Your task to perform on an android device: Search for the new Nintendo switch on Best Buy Image 0: 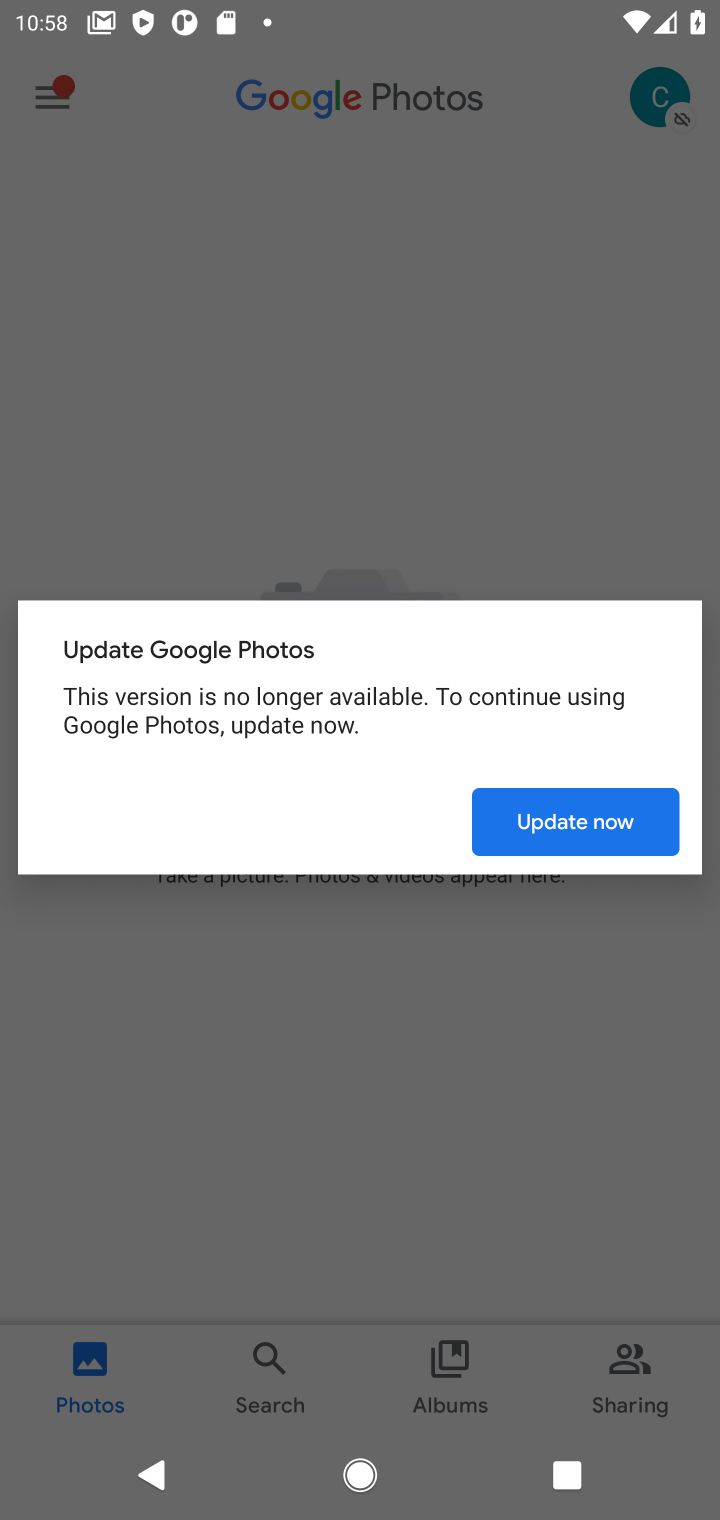
Step 0: press home button
Your task to perform on an android device: Search for the new Nintendo switch on Best Buy Image 1: 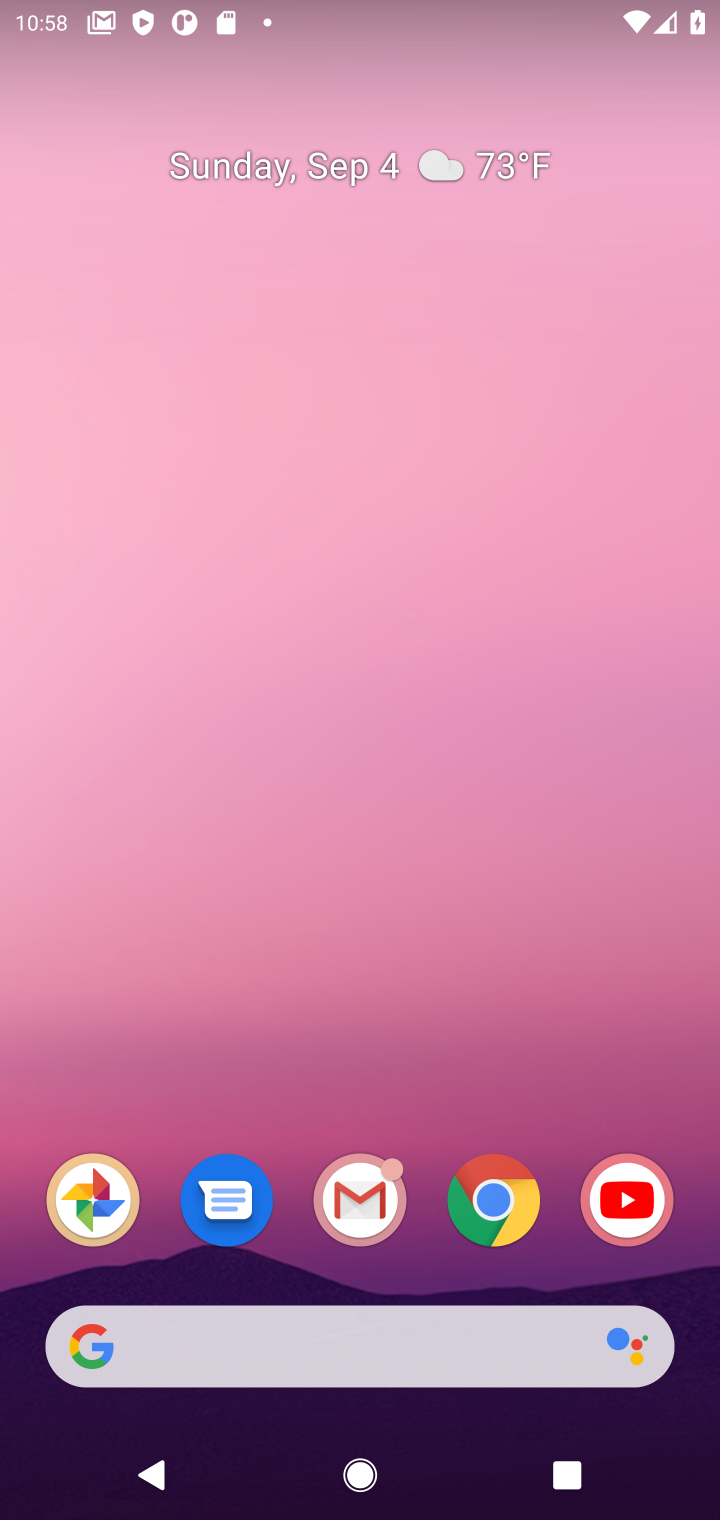
Step 1: click (497, 1201)
Your task to perform on an android device: Search for the new Nintendo switch on Best Buy Image 2: 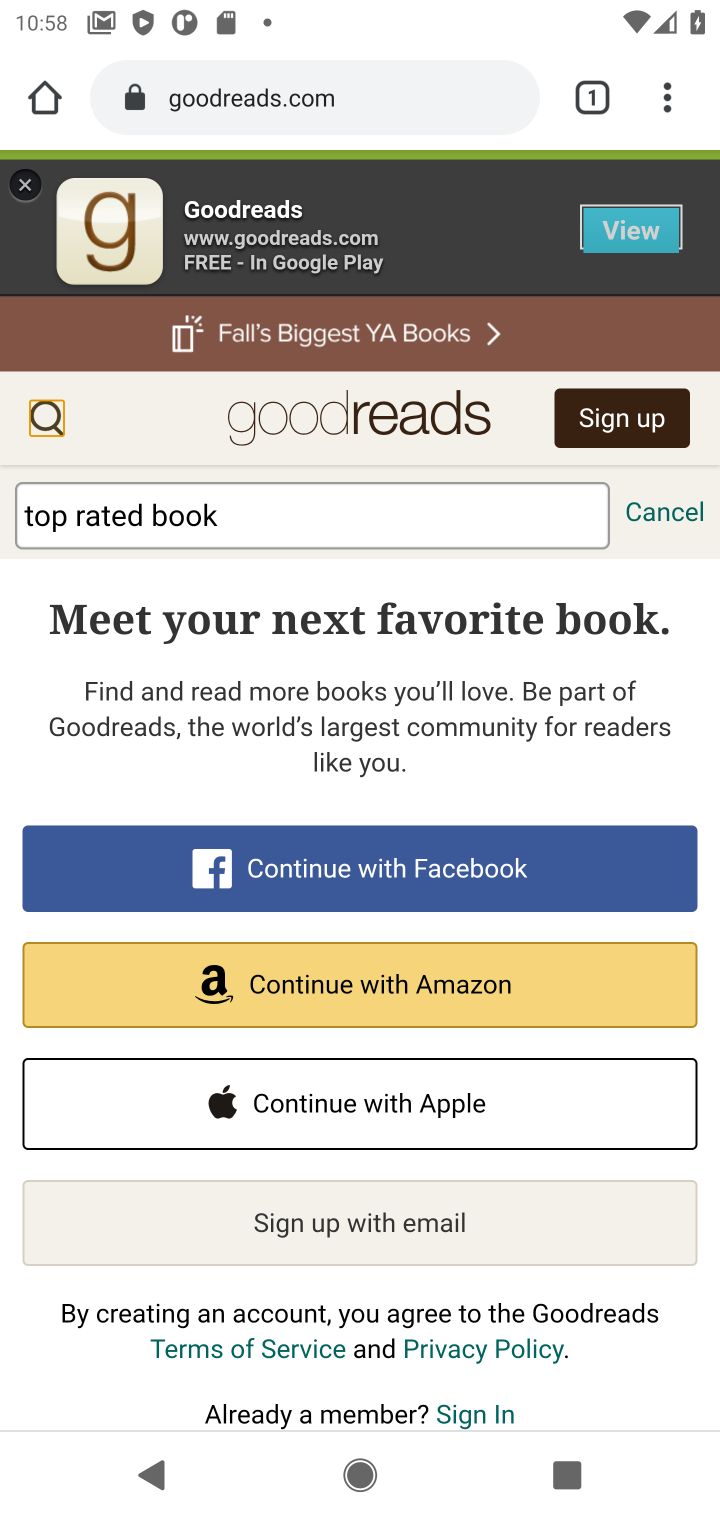
Step 2: click (335, 110)
Your task to perform on an android device: Search for the new Nintendo switch on Best Buy Image 3: 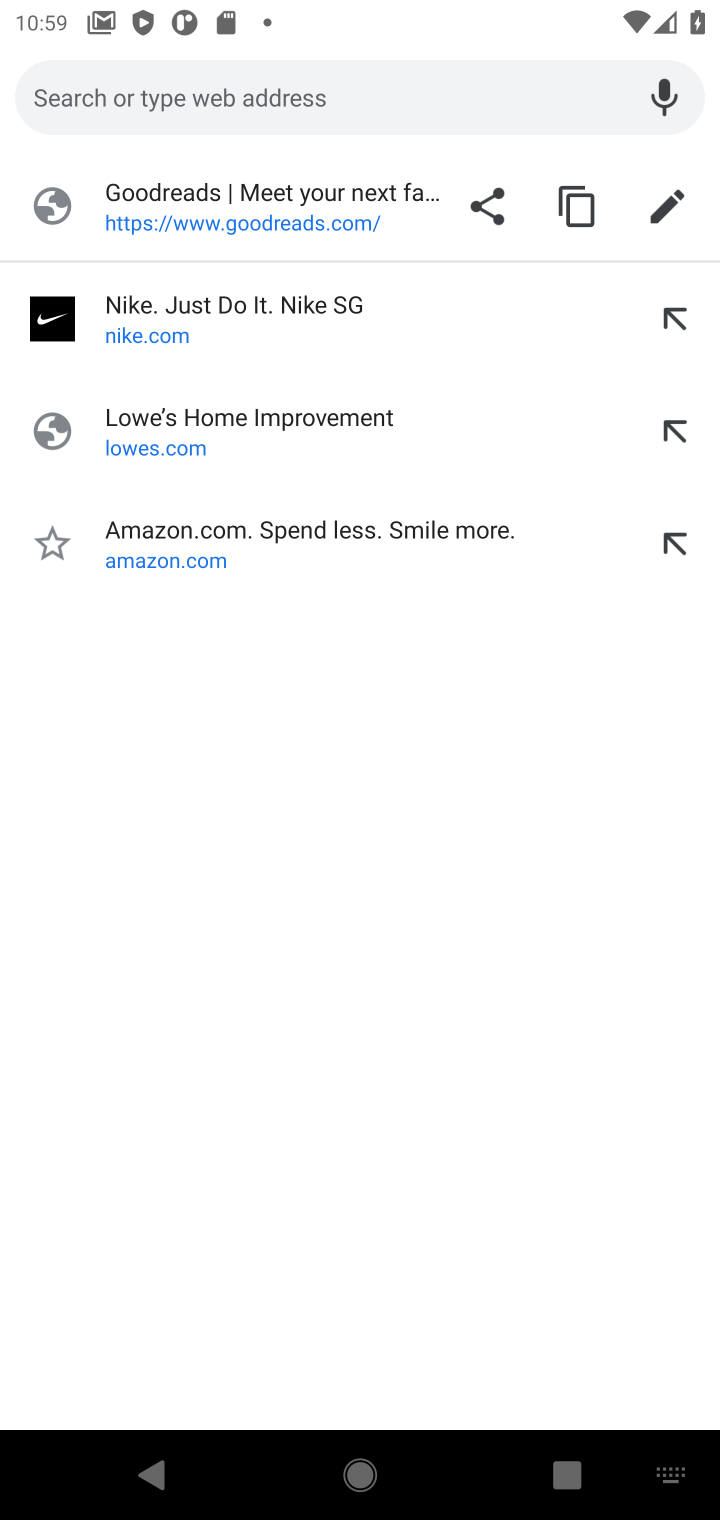
Step 3: type "best buy"
Your task to perform on an android device: Search for the new Nintendo switch on Best Buy Image 4: 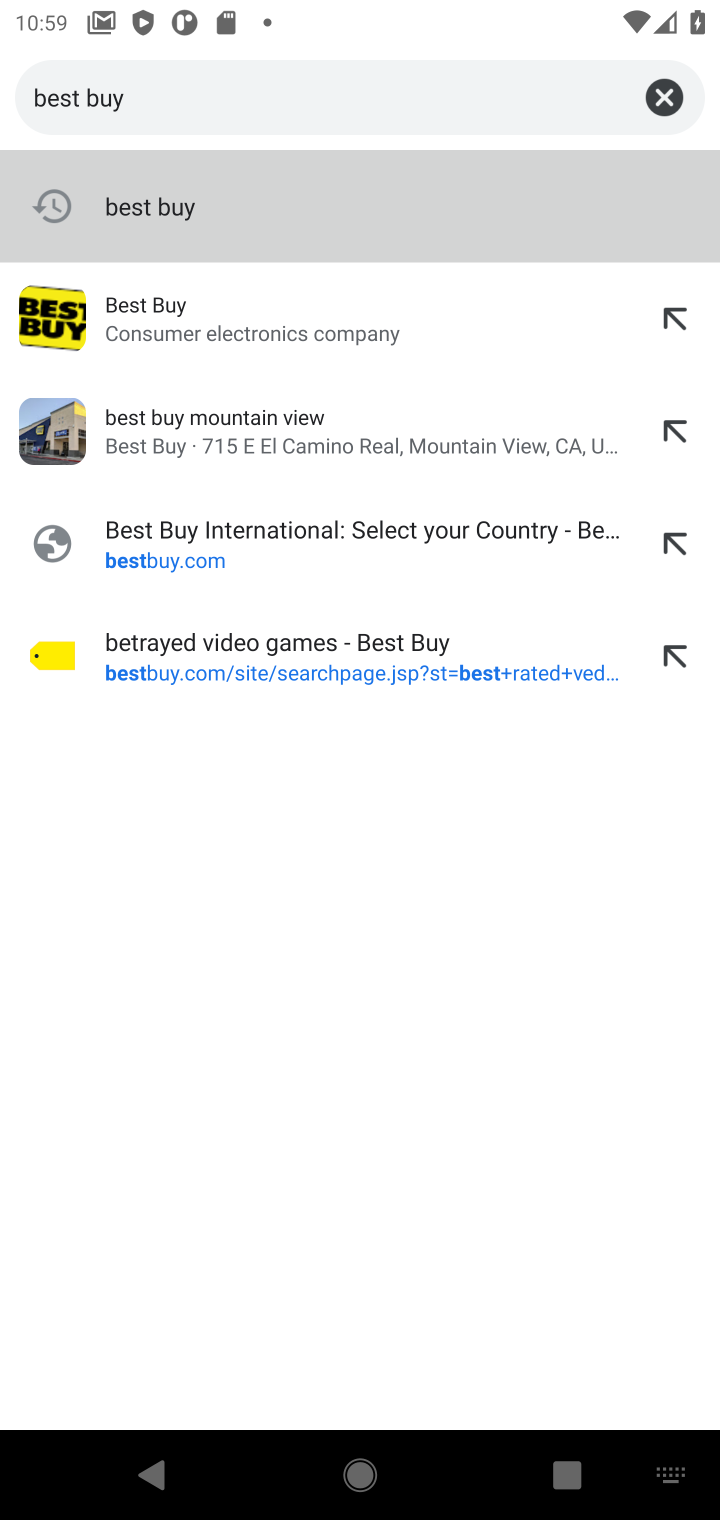
Step 4: click (407, 308)
Your task to perform on an android device: Search for the new Nintendo switch on Best Buy Image 5: 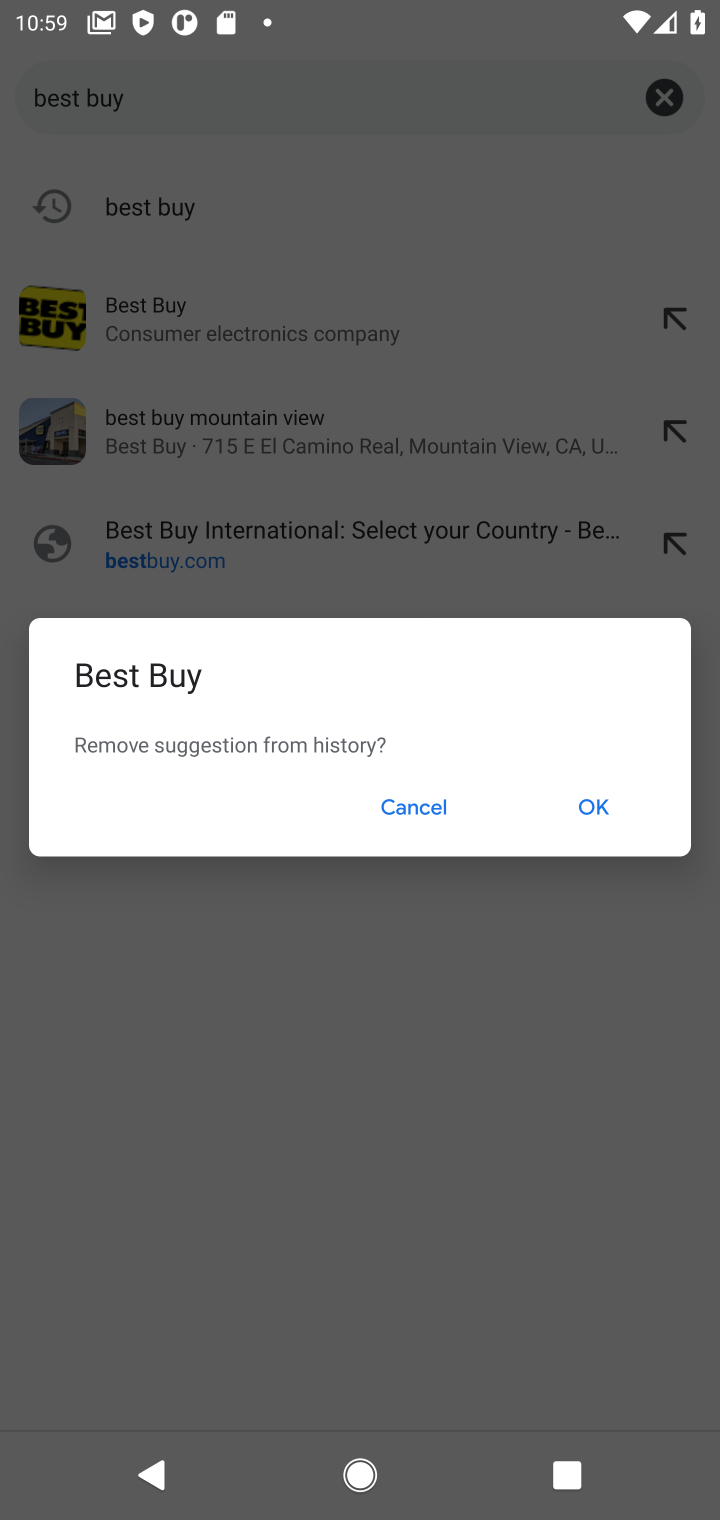
Step 5: click (416, 814)
Your task to perform on an android device: Search for the new Nintendo switch on Best Buy Image 6: 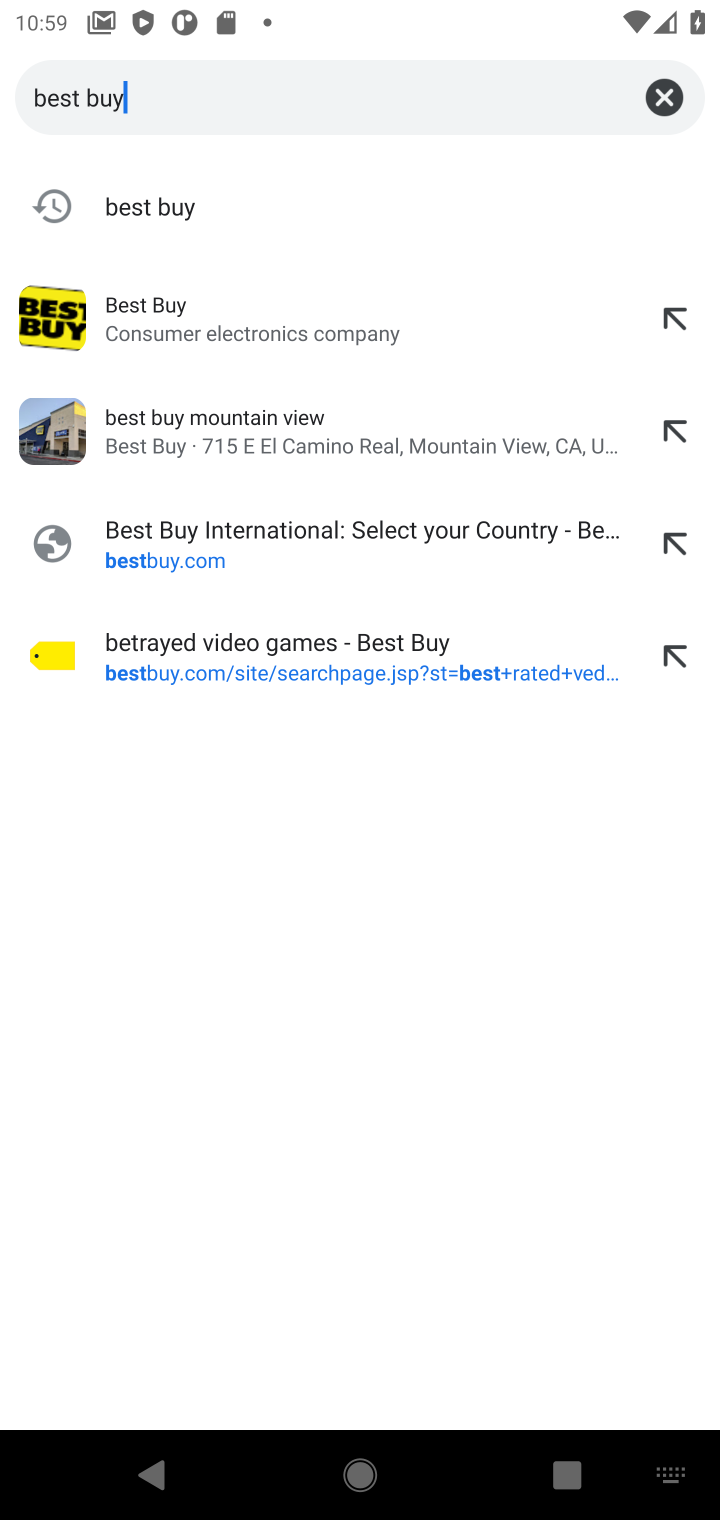
Step 6: click (677, 318)
Your task to perform on an android device: Search for the new Nintendo switch on Best Buy Image 7: 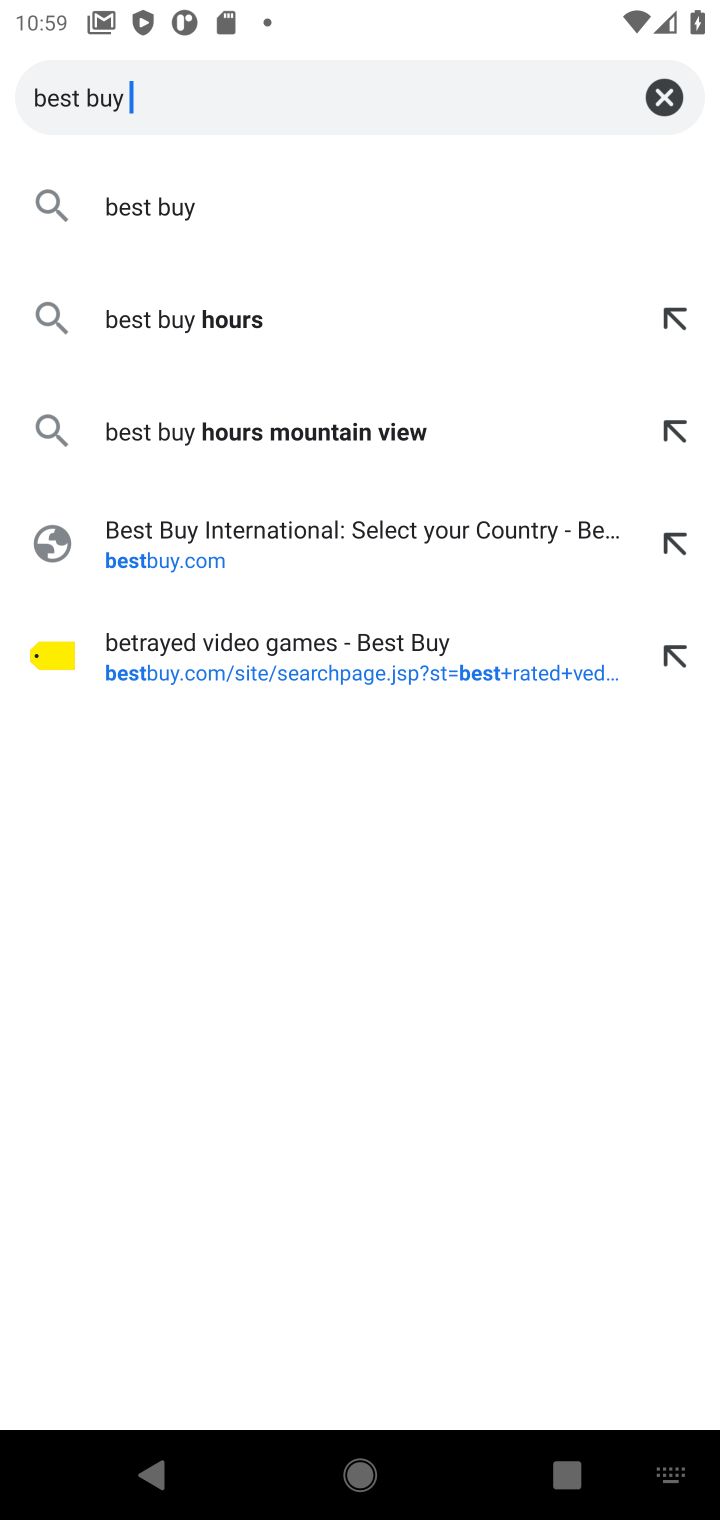
Step 7: click (675, 322)
Your task to perform on an android device: Search for the new Nintendo switch on Best Buy Image 8: 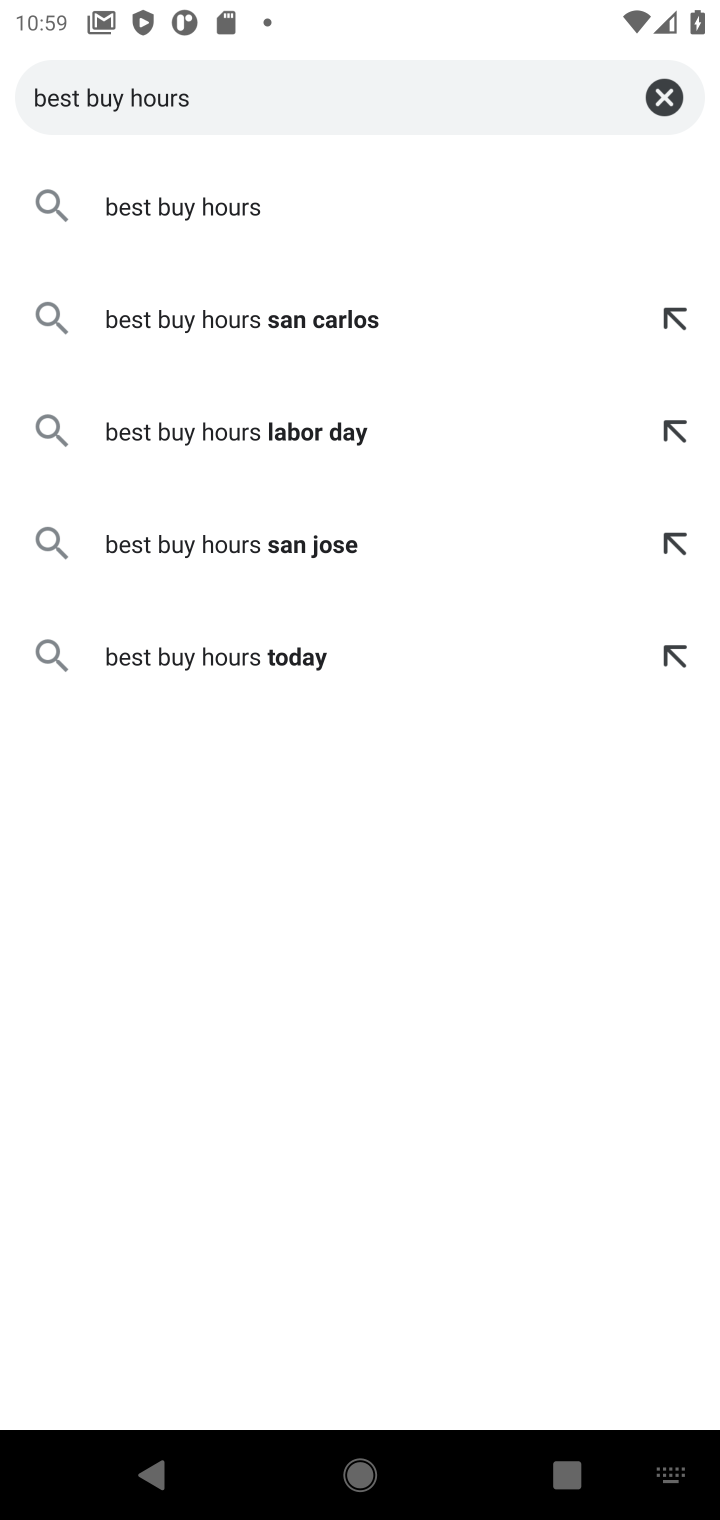
Step 8: click (667, 101)
Your task to perform on an android device: Search for the new Nintendo switch on Best Buy Image 9: 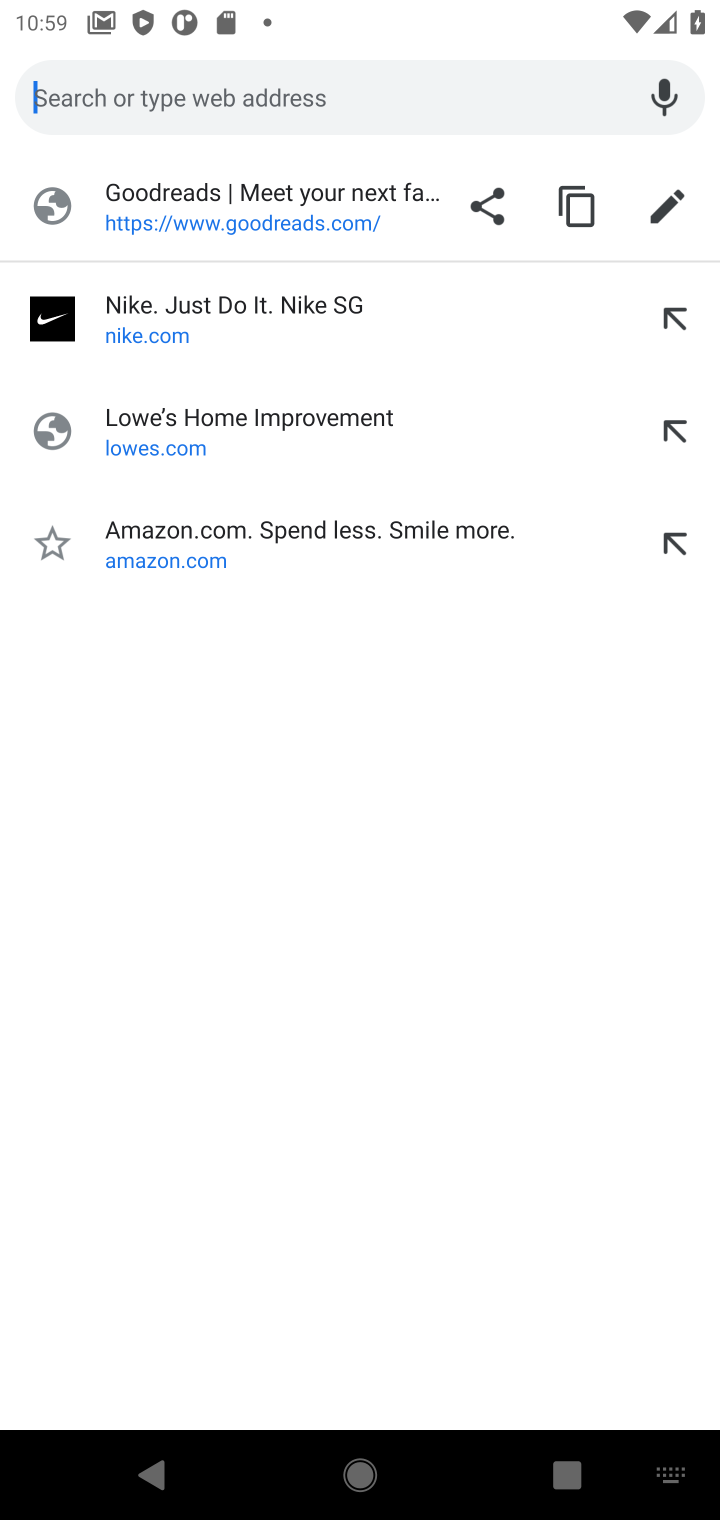
Step 9: type "best buy"
Your task to perform on an android device: Search for the new Nintendo switch on Best Buy Image 10: 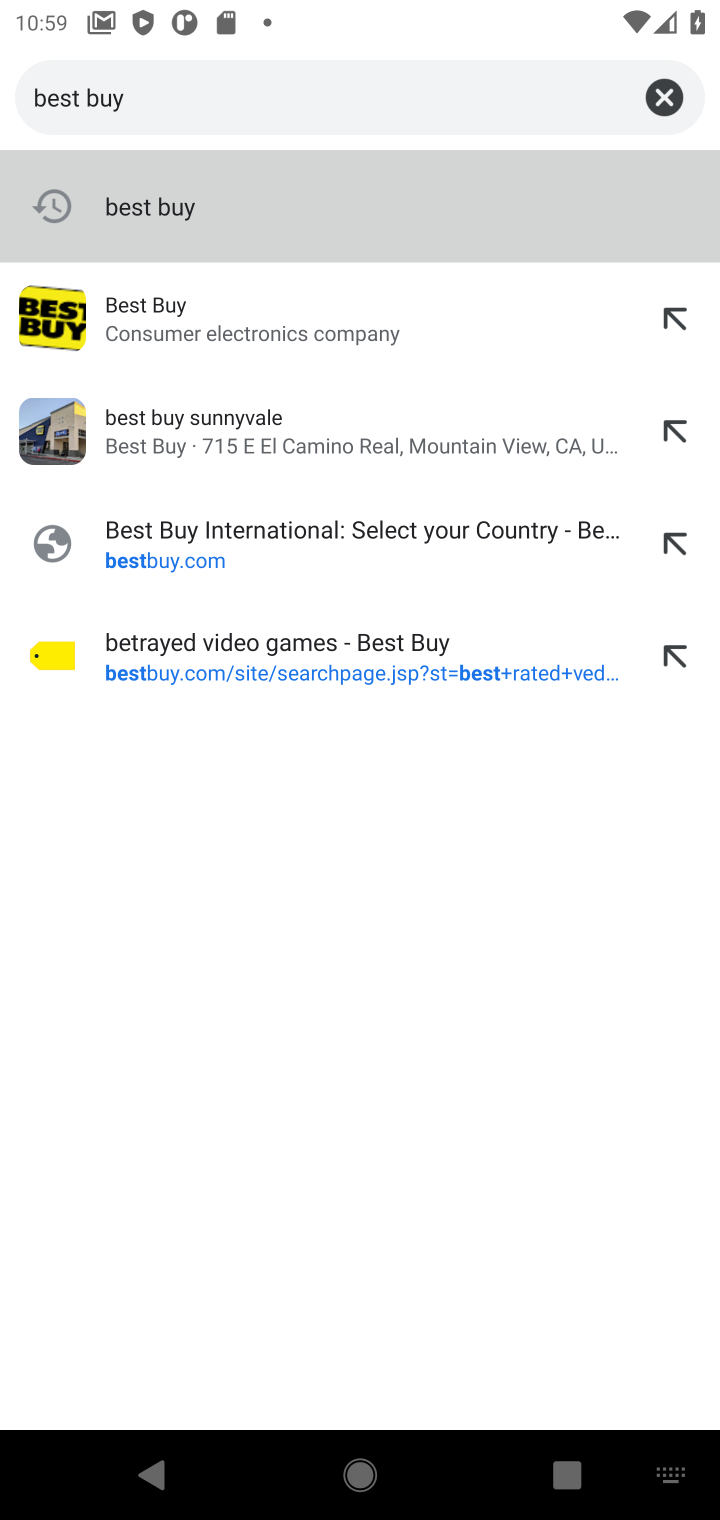
Step 10: click (390, 350)
Your task to perform on an android device: Search for the new Nintendo switch on Best Buy Image 11: 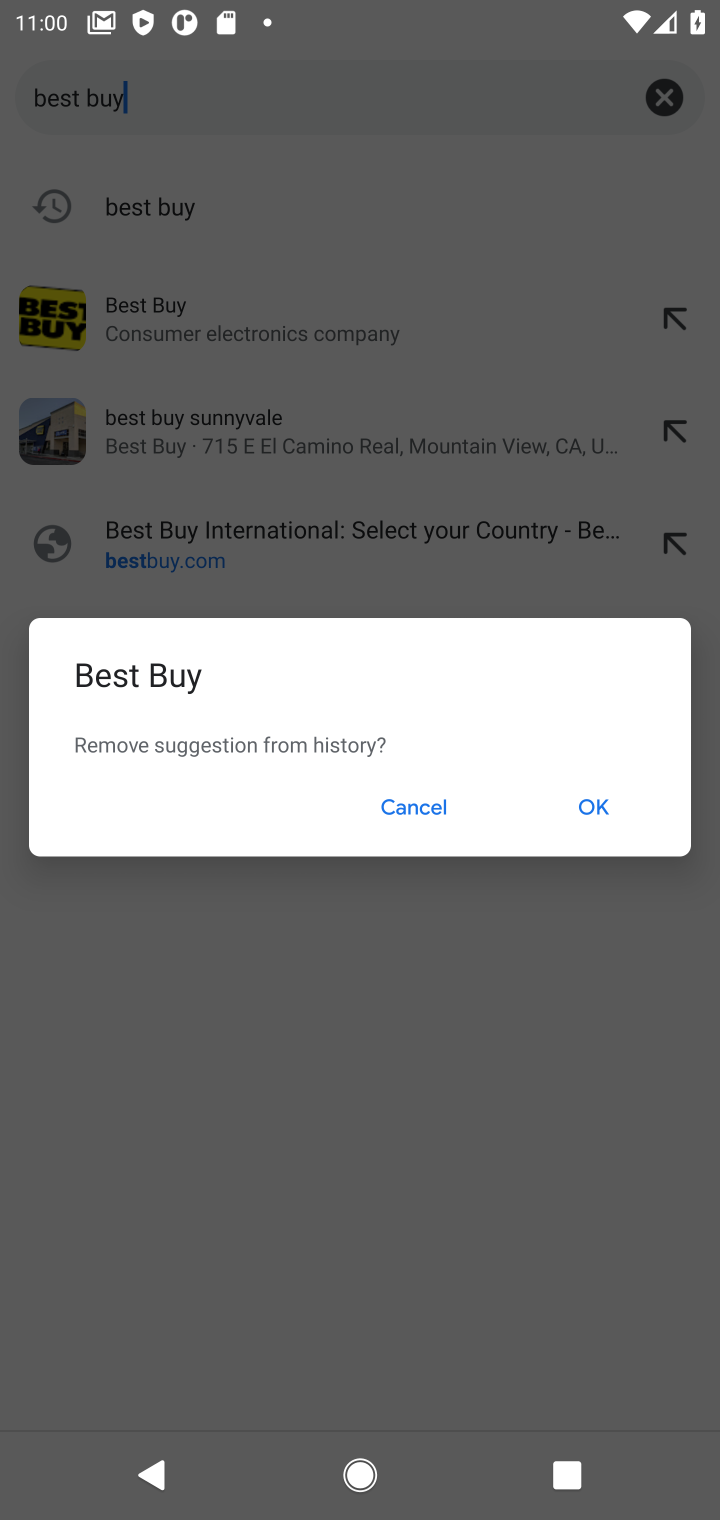
Step 11: click (436, 802)
Your task to perform on an android device: Search for the new Nintendo switch on Best Buy Image 12: 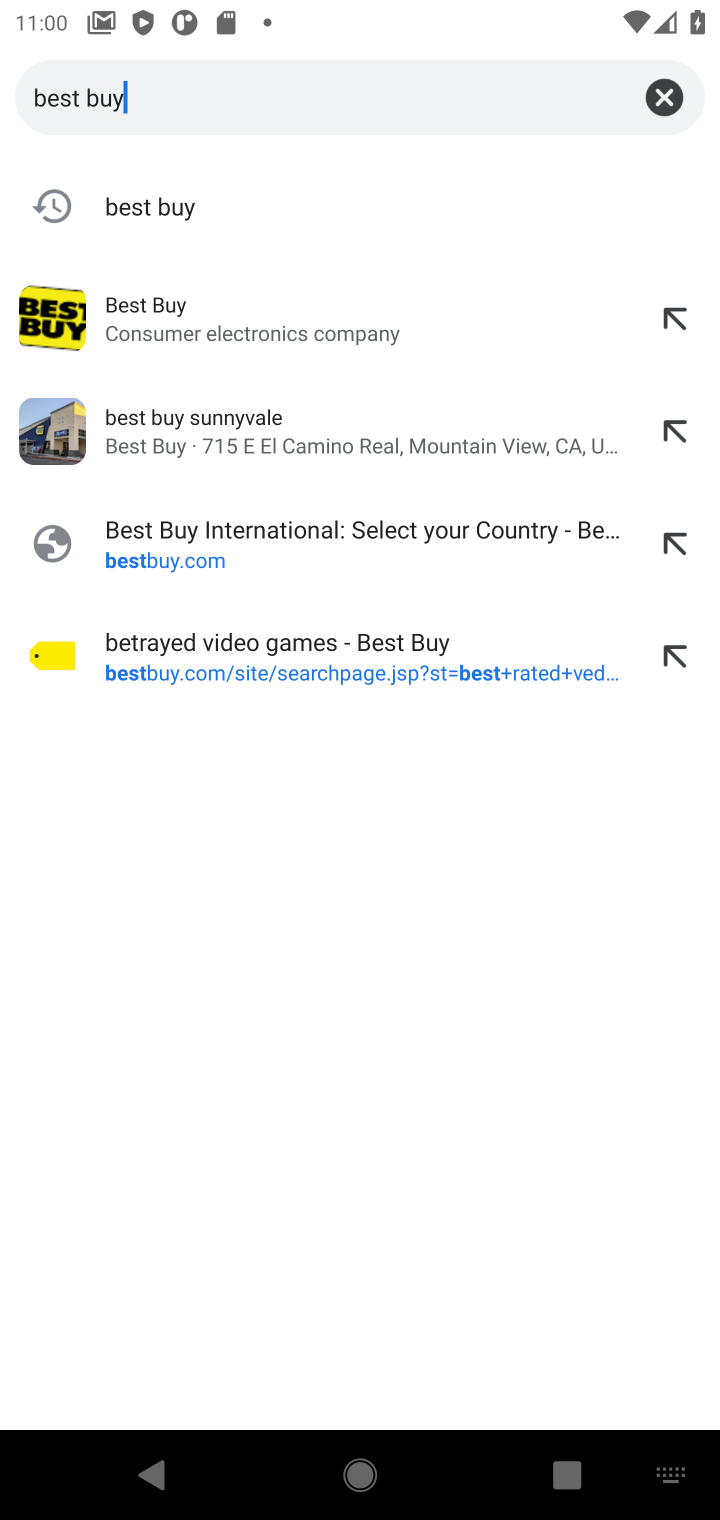
Step 12: click (57, 325)
Your task to perform on an android device: Search for the new Nintendo switch on Best Buy Image 13: 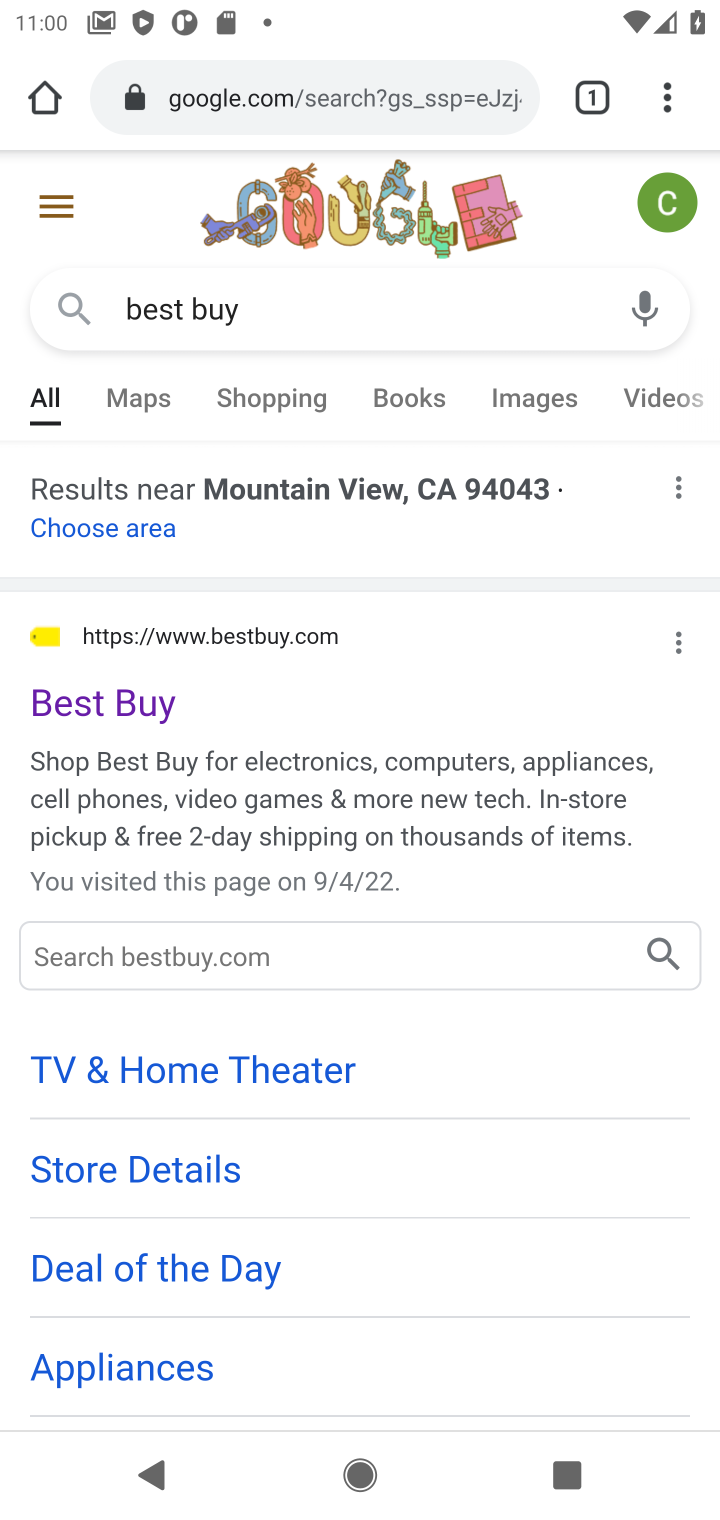
Step 13: click (130, 702)
Your task to perform on an android device: Search for the new Nintendo switch on Best Buy Image 14: 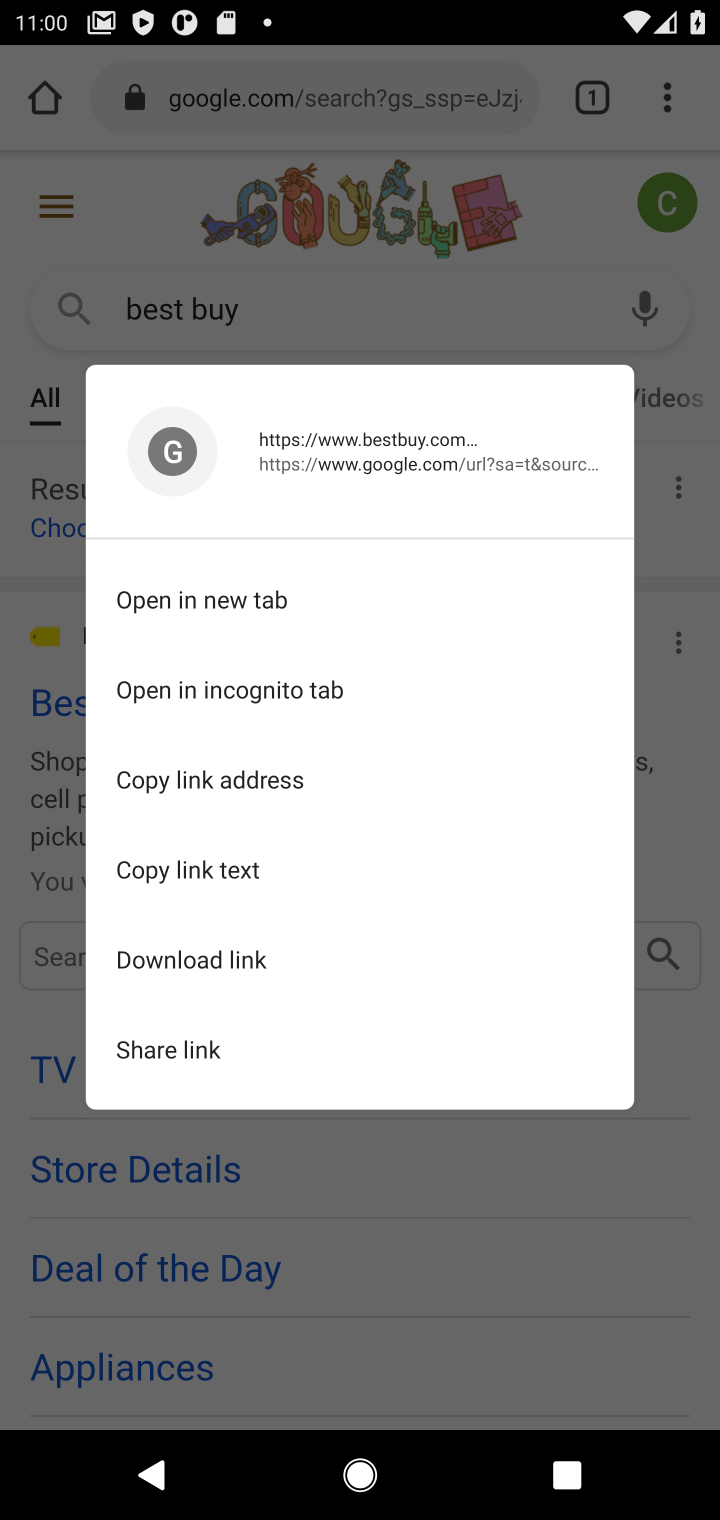
Step 14: click (21, 770)
Your task to perform on an android device: Search for the new Nintendo switch on Best Buy Image 15: 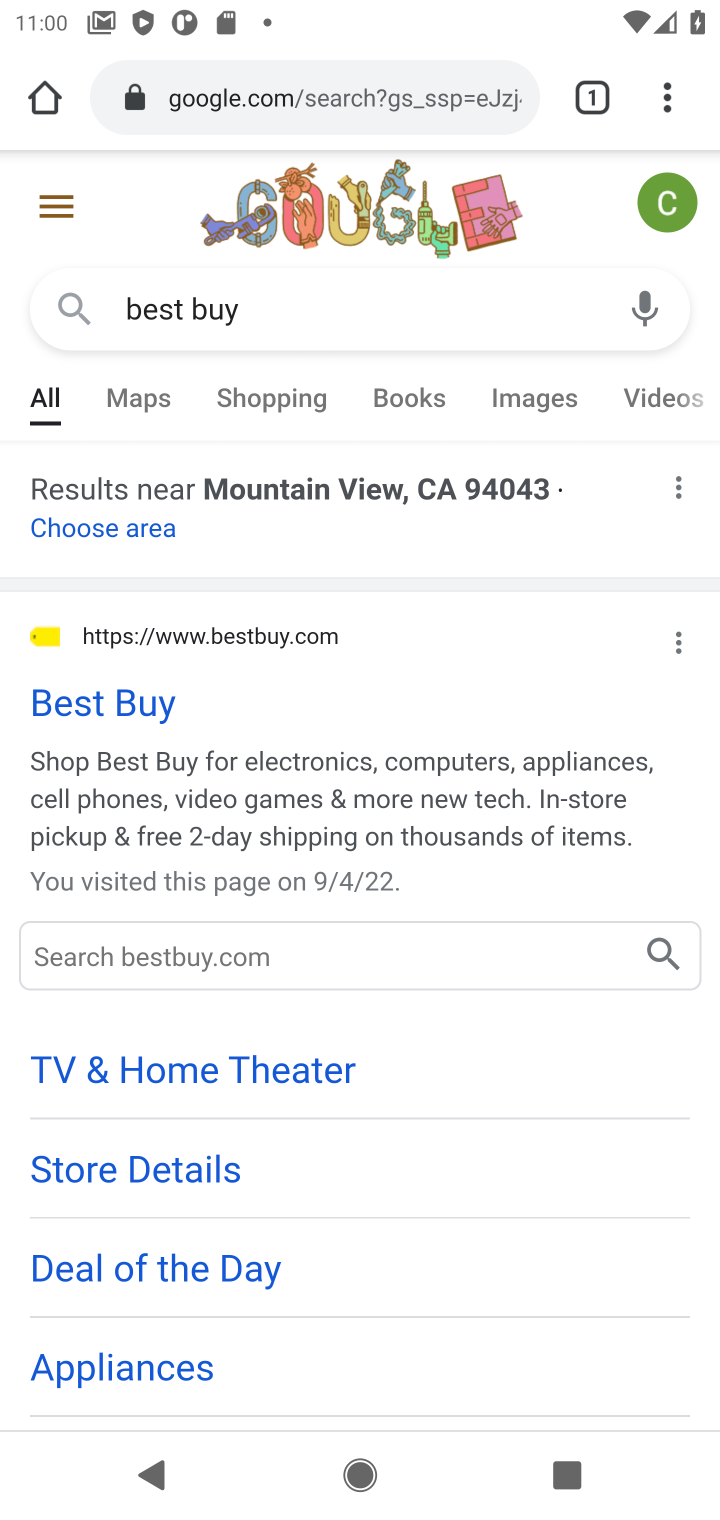
Step 15: click (83, 696)
Your task to perform on an android device: Search for the new Nintendo switch on Best Buy Image 16: 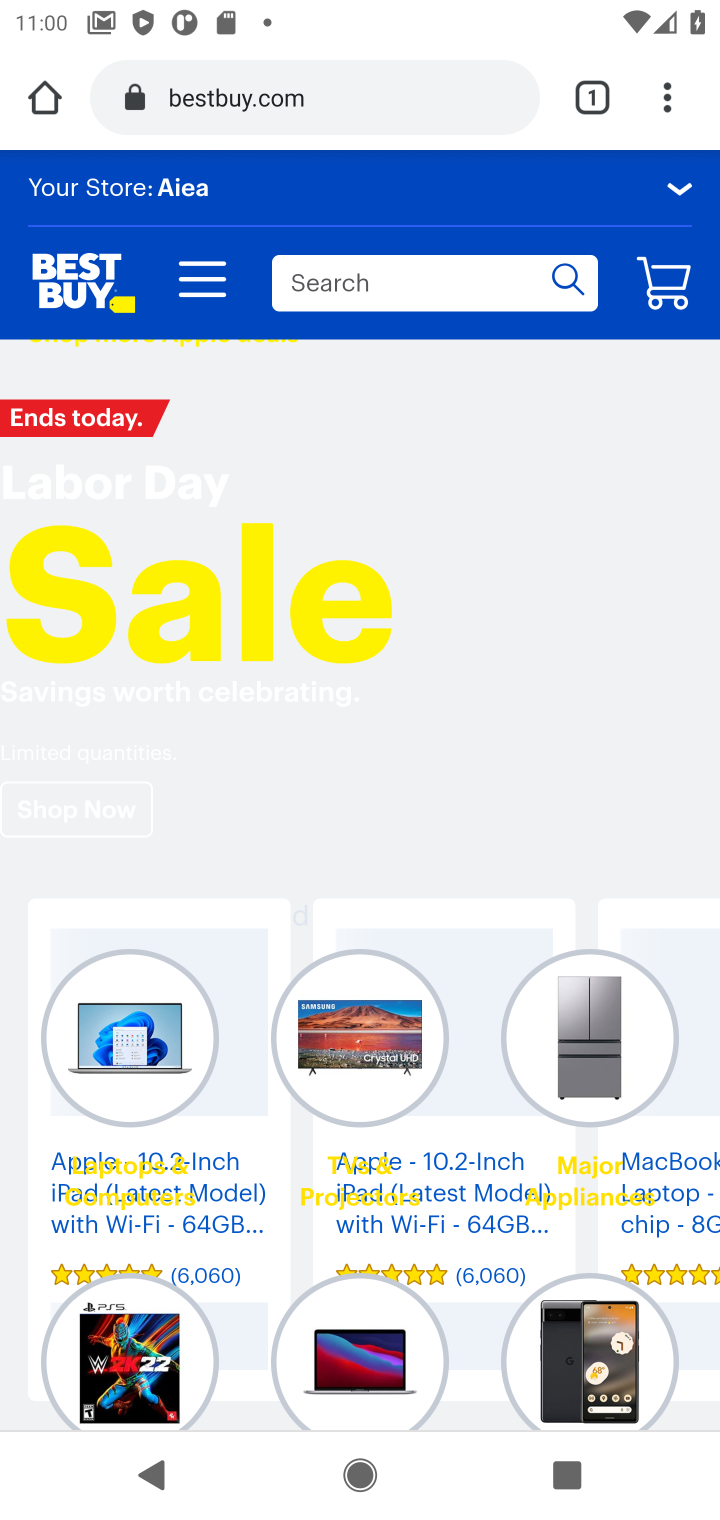
Step 16: click (568, 275)
Your task to perform on an android device: Search for the new Nintendo switch on Best Buy Image 17: 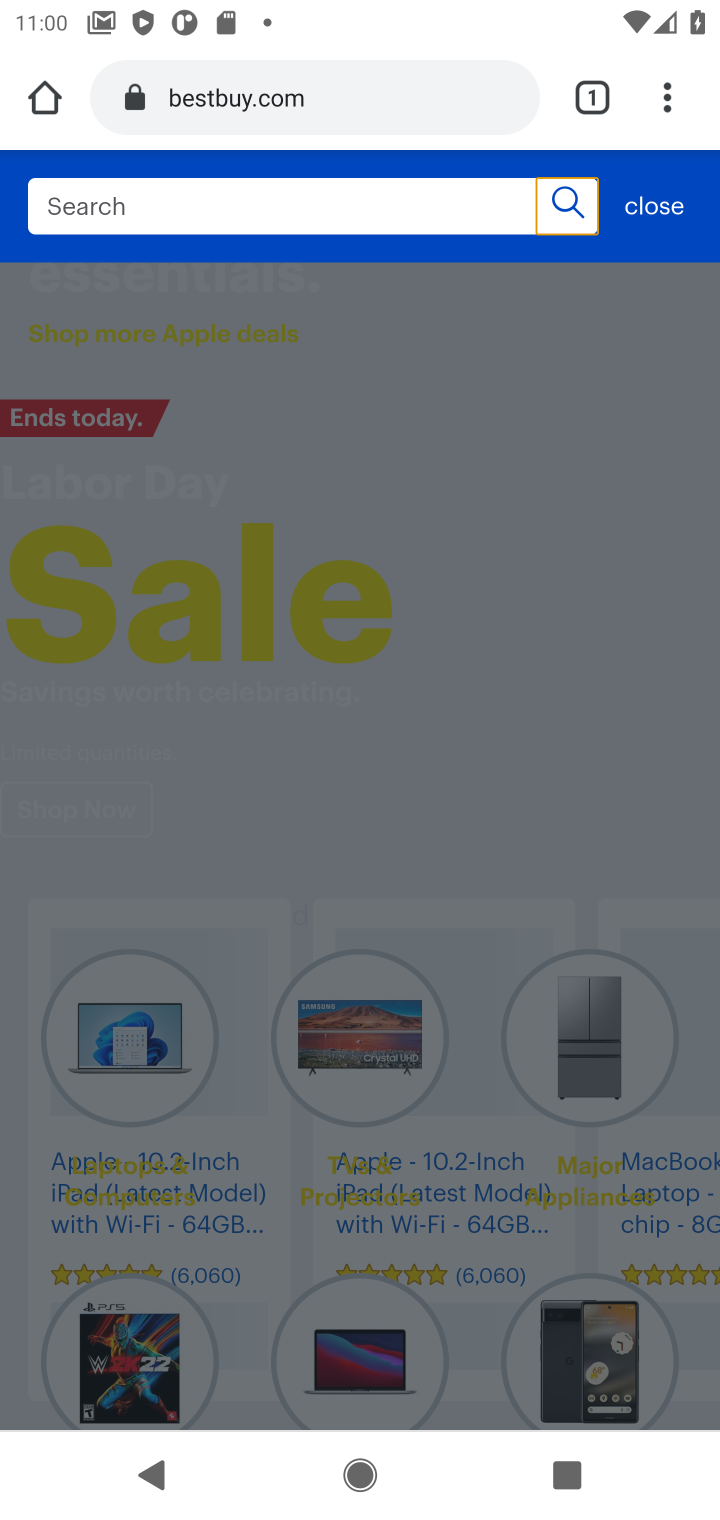
Step 17: click (476, 213)
Your task to perform on an android device: Search for the new Nintendo switch on Best Buy Image 18: 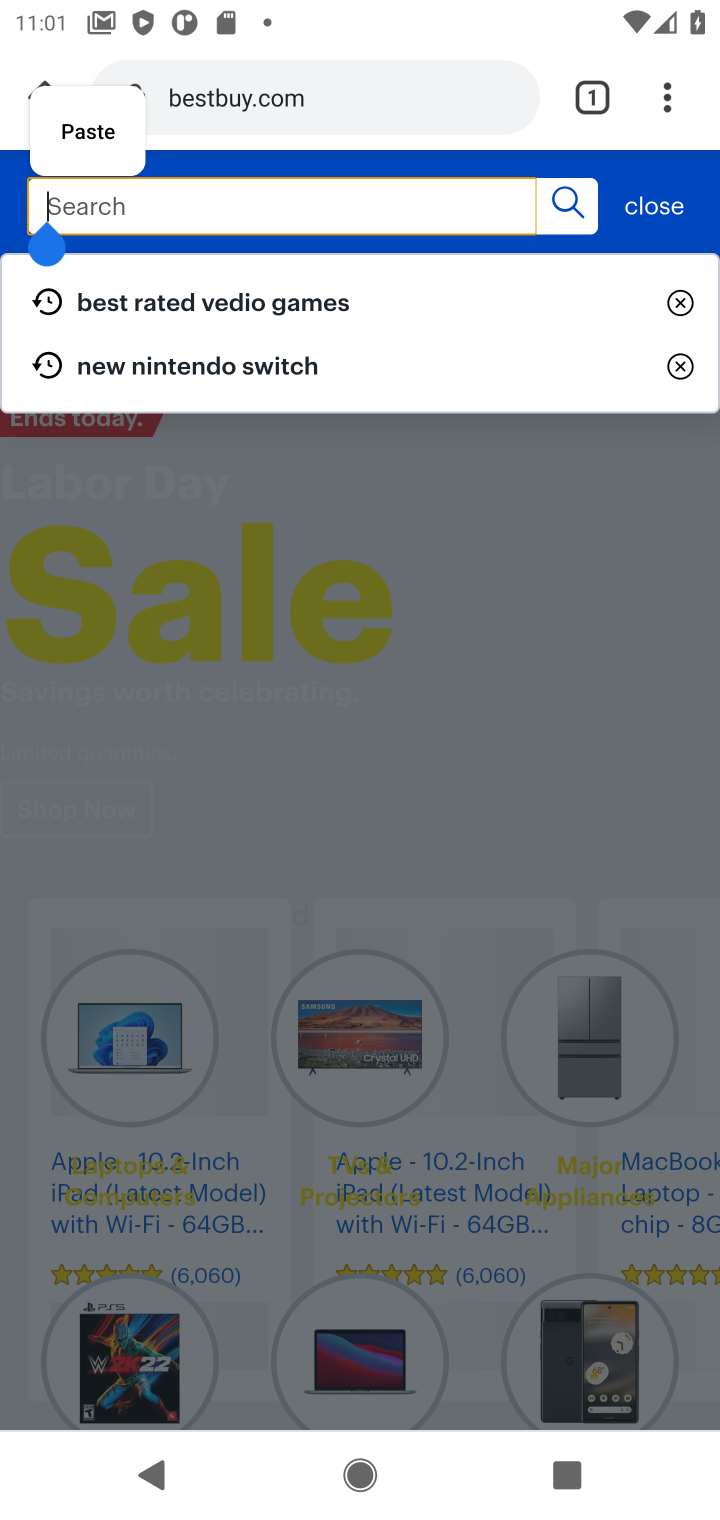
Step 18: type "new Nintendo switch"
Your task to perform on an android device: Search for the new Nintendo switch on Best Buy Image 19: 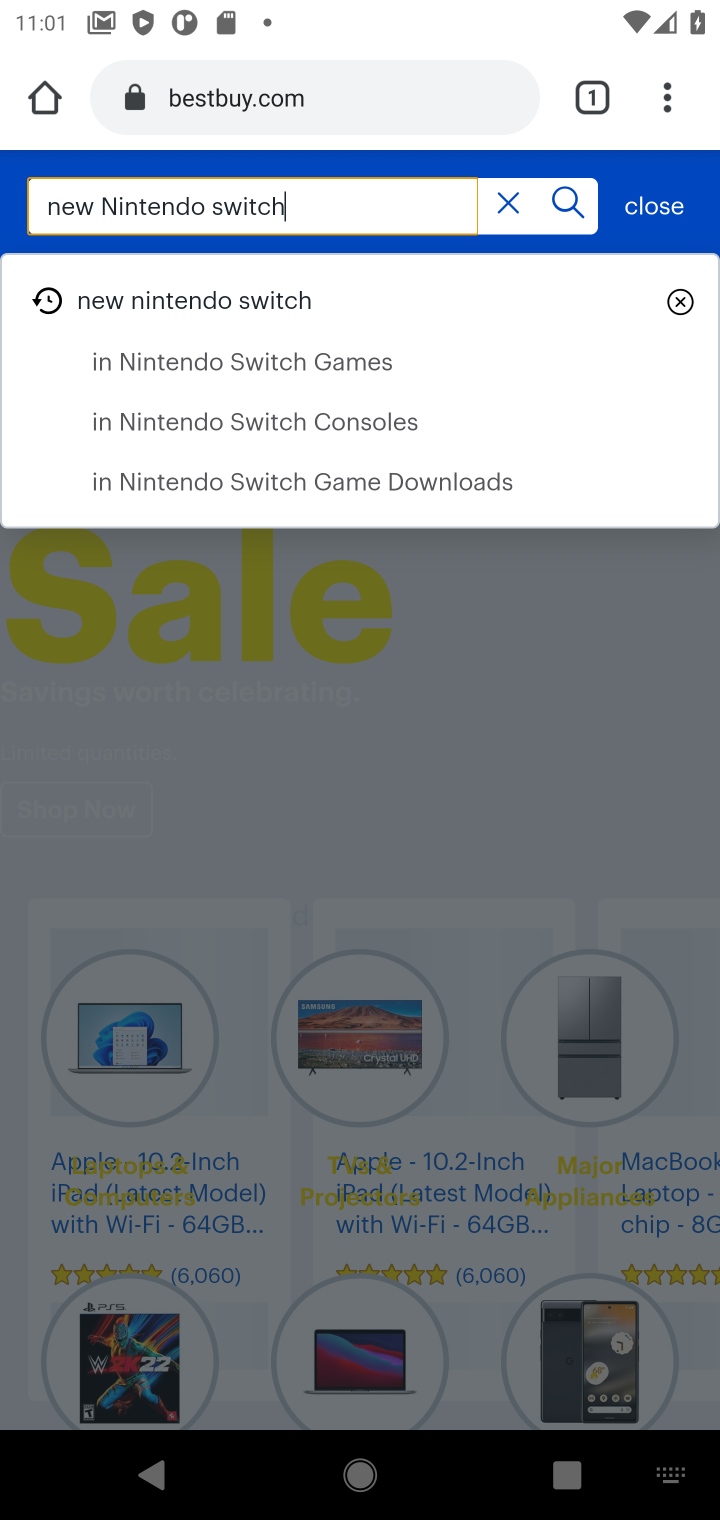
Step 19: click (337, 303)
Your task to perform on an android device: Search for the new Nintendo switch on Best Buy Image 20: 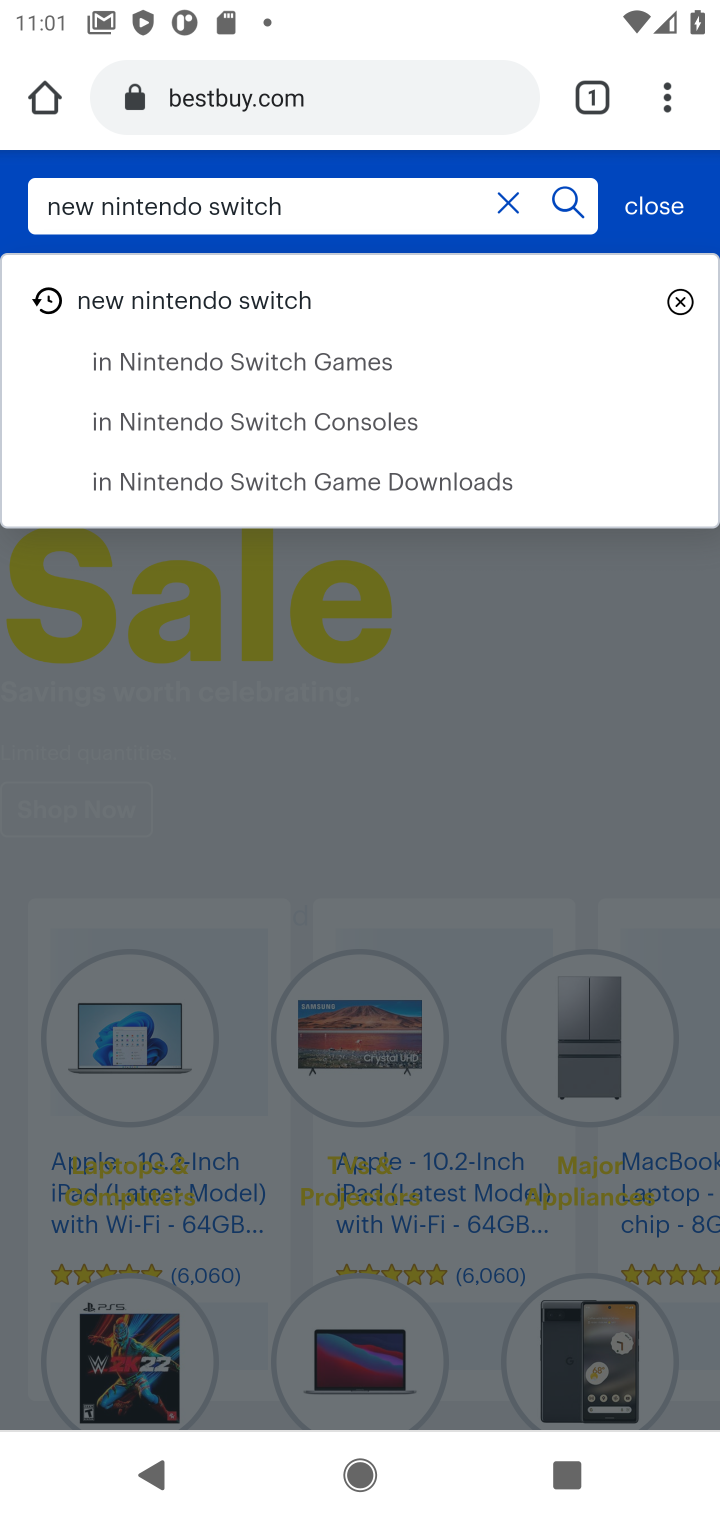
Step 20: click (337, 303)
Your task to perform on an android device: Search for the new Nintendo switch on Best Buy Image 21: 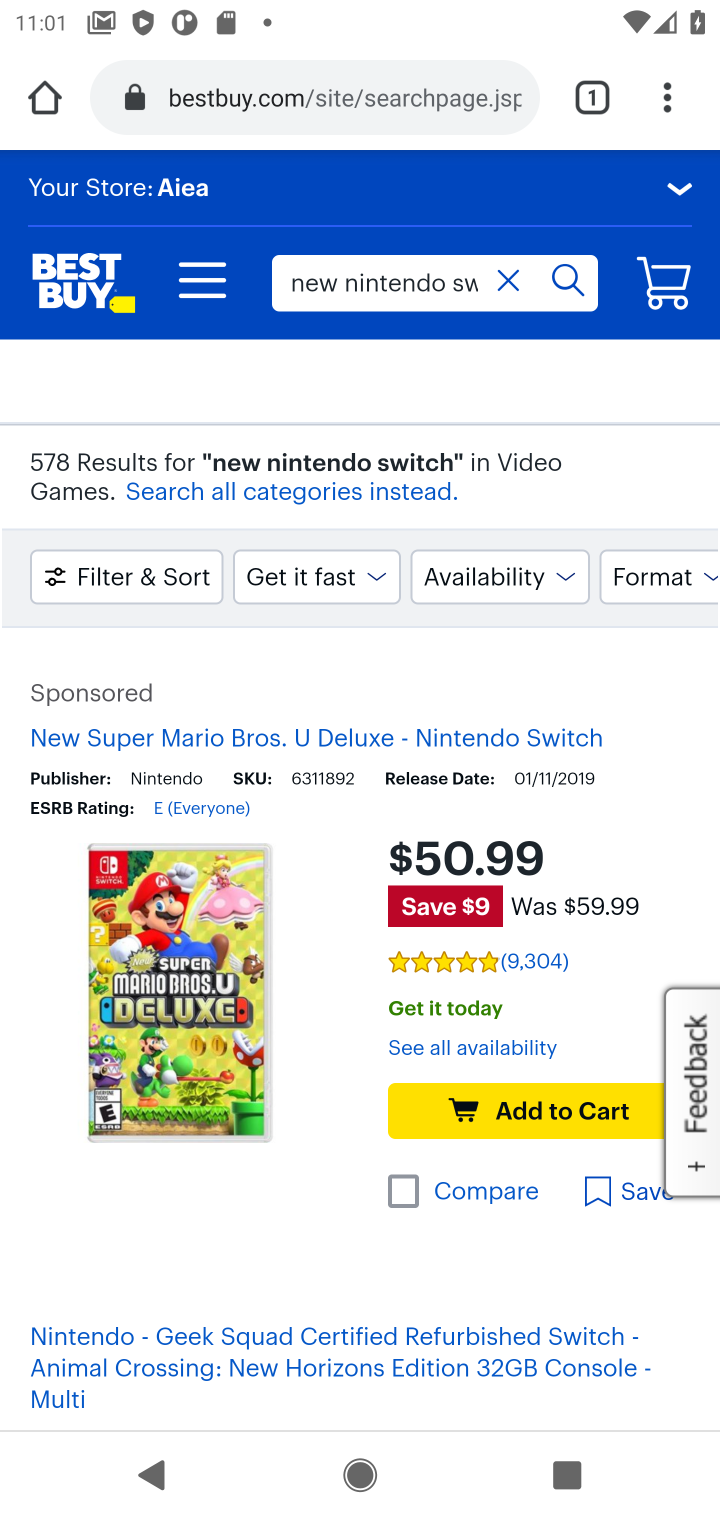
Step 21: task complete